Your task to perform on an android device: Open accessibility settings Image 0: 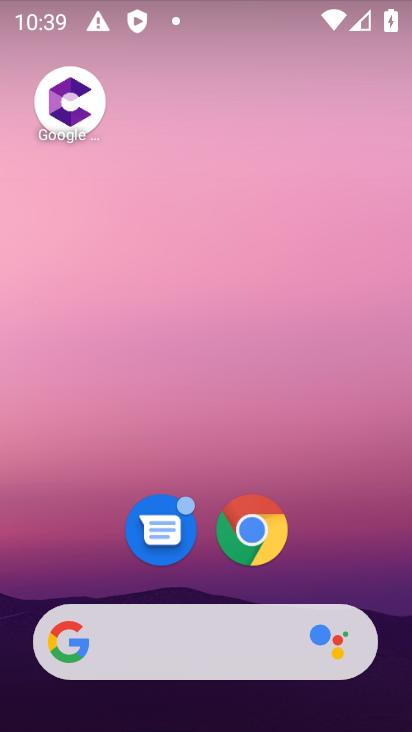
Step 0: press back button
Your task to perform on an android device: Open accessibility settings Image 1: 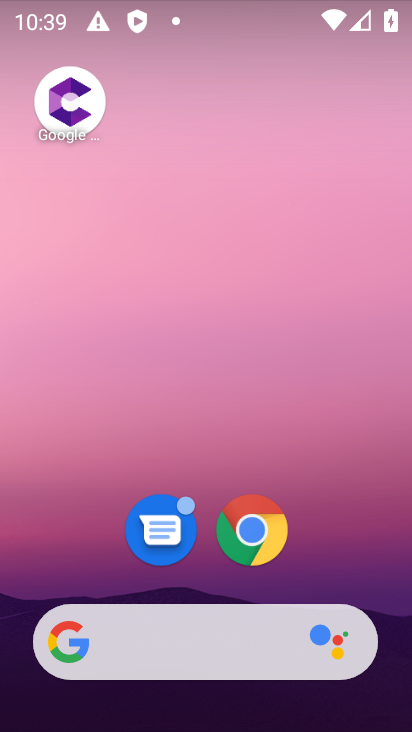
Step 1: drag from (272, 615) to (280, 141)
Your task to perform on an android device: Open accessibility settings Image 2: 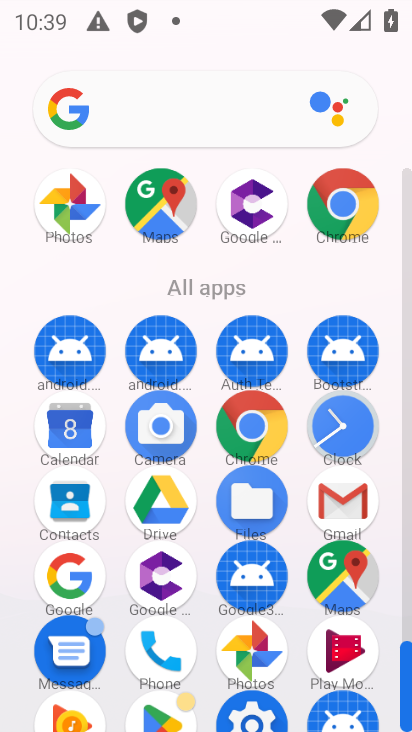
Step 2: drag from (274, 397) to (268, 161)
Your task to perform on an android device: Open accessibility settings Image 3: 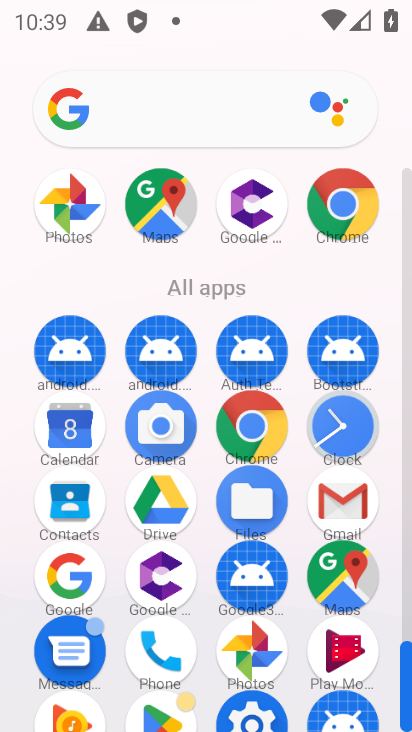
Step 3: drag from (253, 540) to (269, 205)
Your task to perform on an android device: Open accessibility settings Image 4: 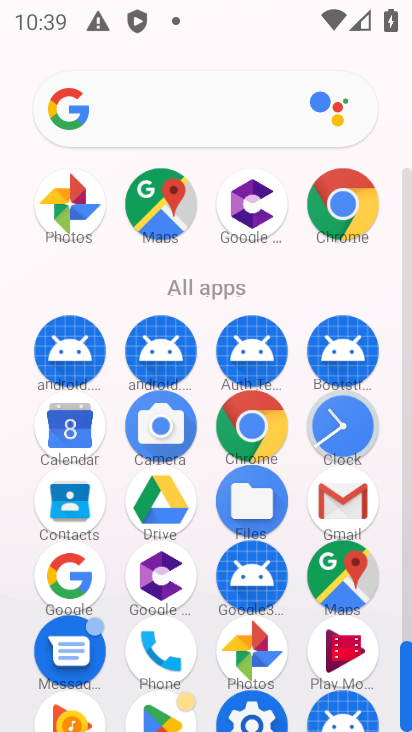
Step 4: drag from (306, 601) to (309, 298)
Your task to perform on an android device: Open accessibility settings Image 5: 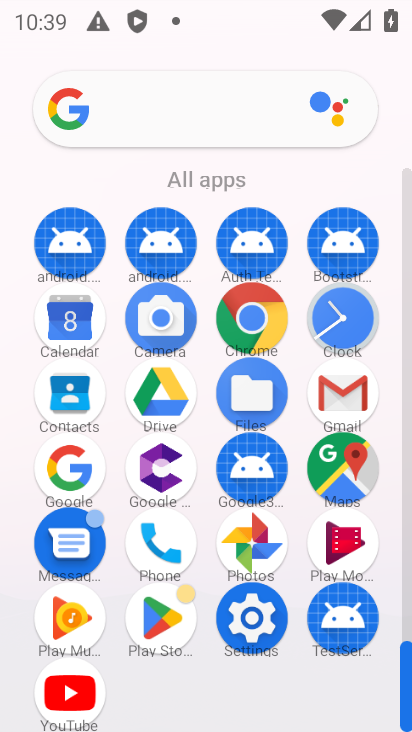
Step 5: drag from (298, 591) to (278, 167)
Your task to perform on an android device: Open accessibility settings Image 6: 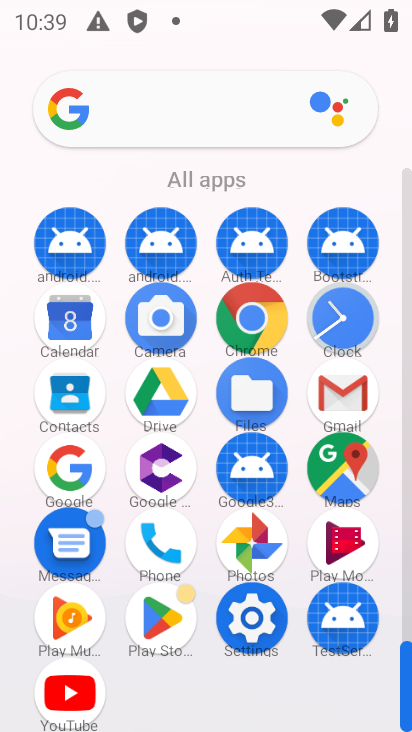
Step 6: click (248, 605)
Your task to perform on an android device: Open accessibility settings Image 7: 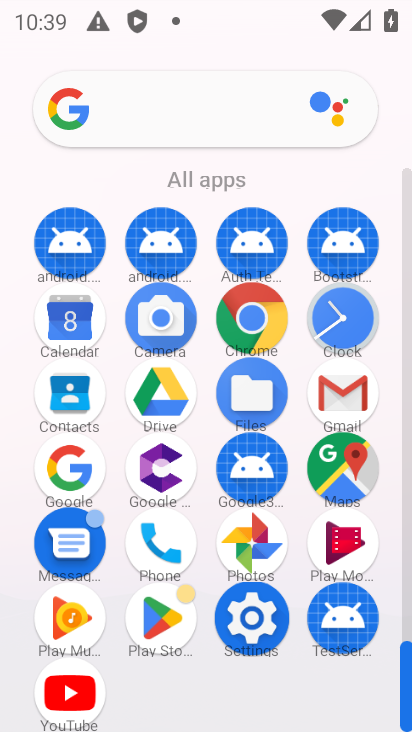
Step 7: click (248, 604)
Your task to perform on an android device: Open accessibility settings Image 8: 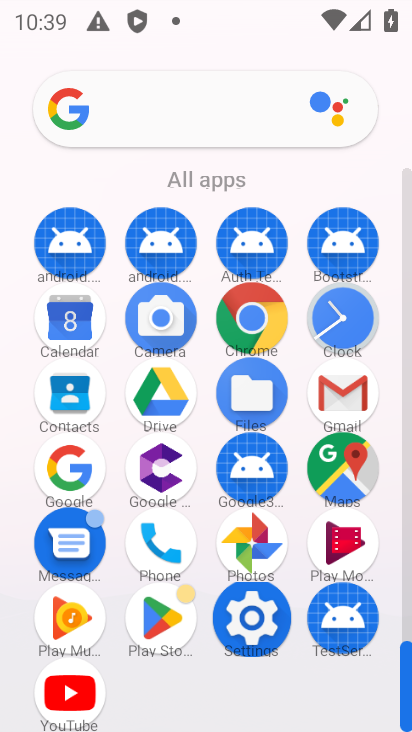
Step 8: click (251, 605)
Your task to perform on an android device: Open accessibility settings Image 9: 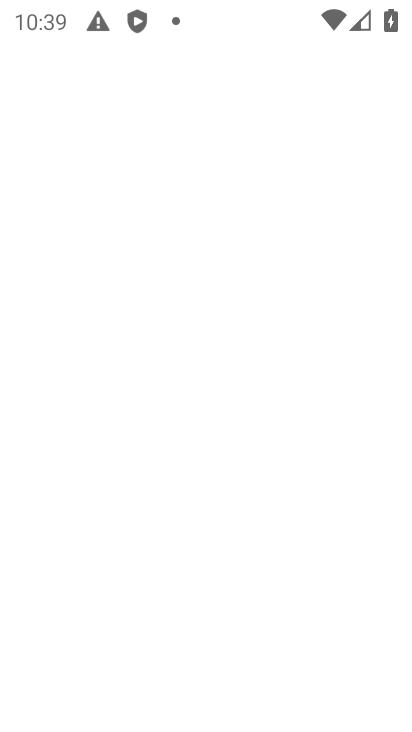
Step 9: click (252, 606)
Your task to perform on an android device: Open accessibility settings Image 10: 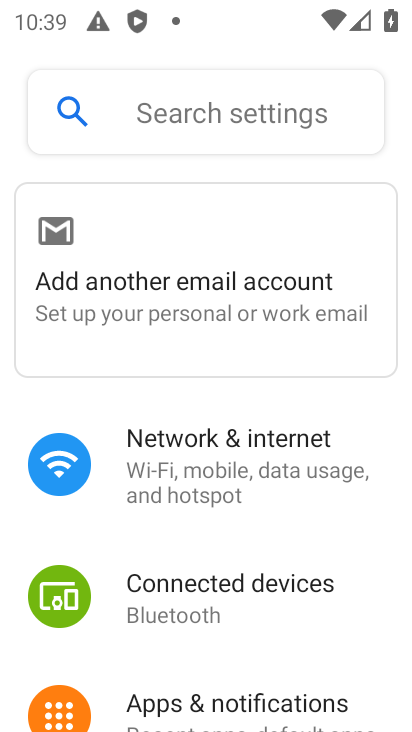
Step 10: drag from (227, 532) to (233, 397)
Your task to perform on an android device: Open accessibility settings Image 11: 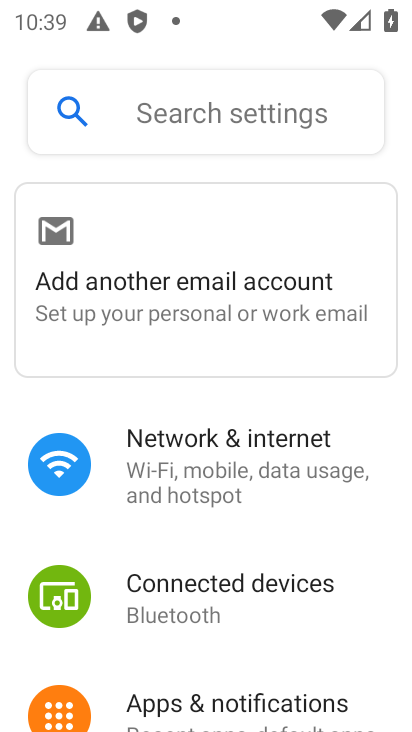
Step 11: click (245, 346)
Your task to perform on an android device: Open accessibility settings Image 12: 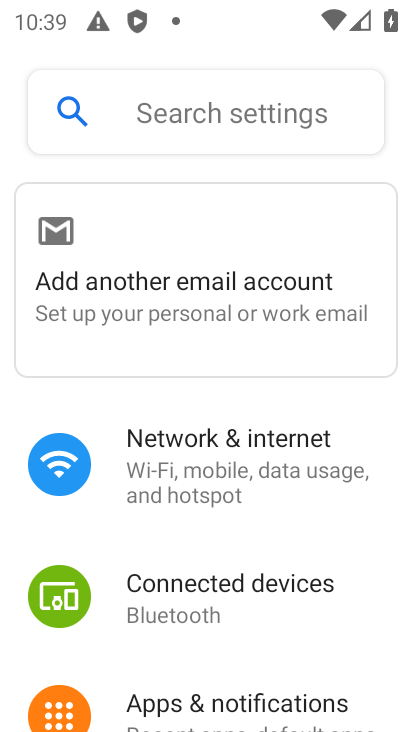
Step 12: drag from (244, 481) to (218, 284)
Your task to perform on an android device: Open accessibility settings Image 13: 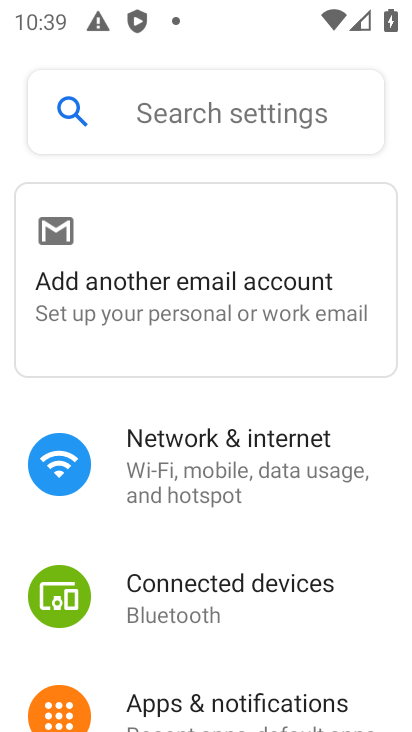
Step 13: drag from (215, 508) to (201, 314)
Your task to perform on an android device: Open accessibility settings Image 14: 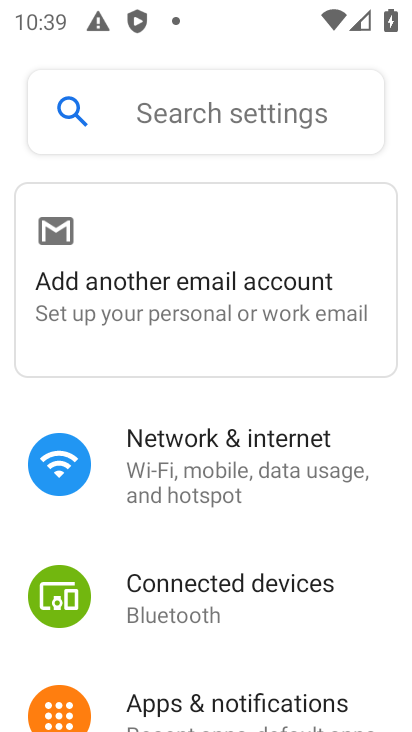
Step 14: drag from (218, 321) to (230, 274)
Your task to perform on an android device: Open accessibility settings Image 15: 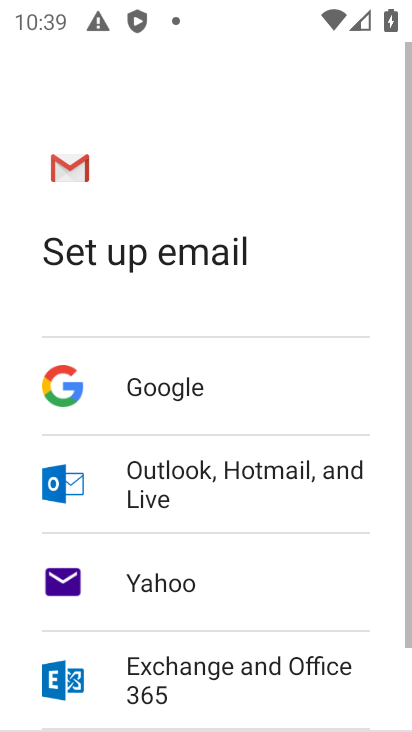
Step 15: drag from (230, 400) to (223, 263)
Your task to perform on an android device: Open accessibility settings Image 16: 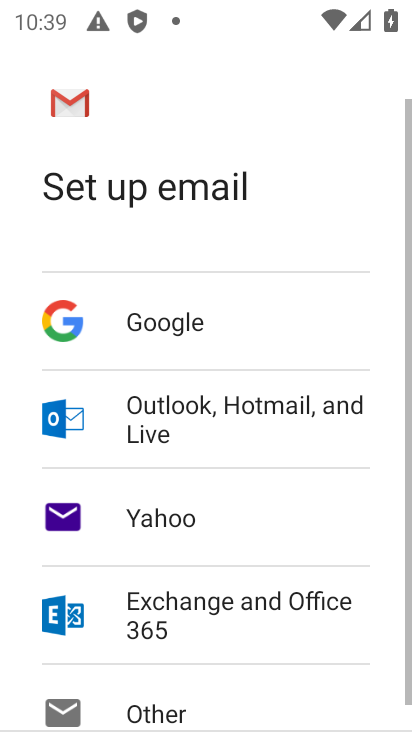
Step 16: drag from (181, 568) to (170, 357)
Your task to perform on an android device: Open accessibility settings Image 17: 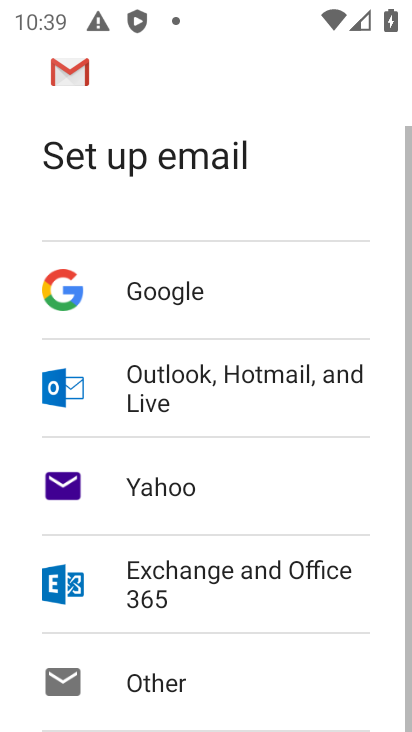
Step 17: press back button
Your task to perform on an android device: Open accessibility settings Image 18: 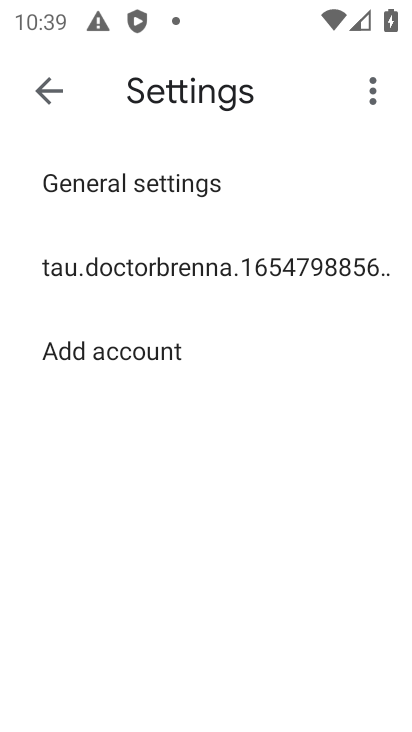
Step 18: click (38, 104)
Your task to perform on an android device: Open accessibility settings Image 19: 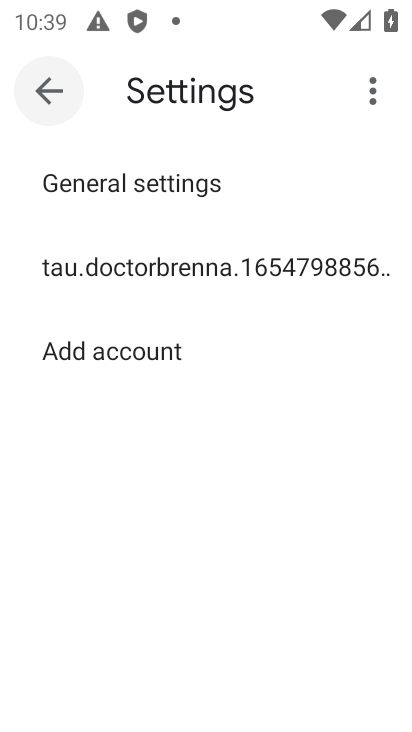
Step 19: click (36, 94)
Your task to perform on an android device: Open accessibility settings Image 20: 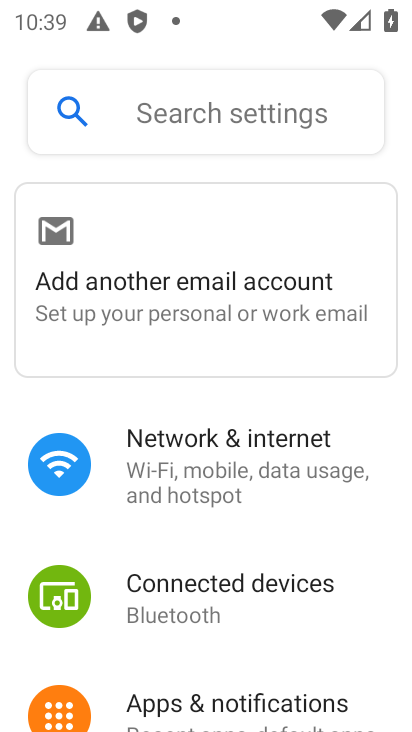
Step 20: drag from (193, 441) to (200, 353)
Your task to perform on an android device: Open accessibility settings Image 21: 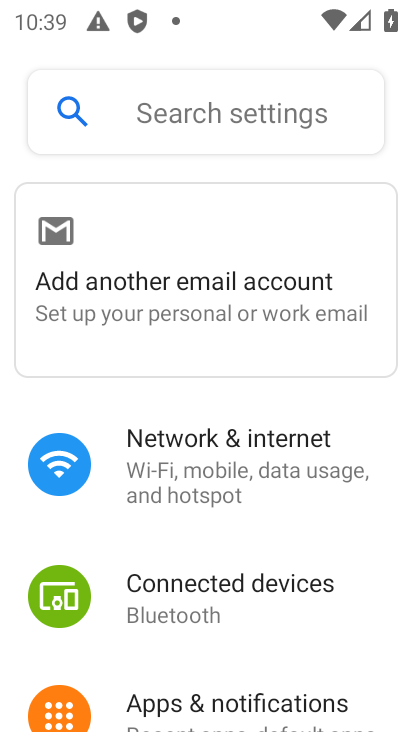
Step 21: drag from (222, 487) to (241, 247)
Your task to perform on an android device: Open accessibility settings Image 22: 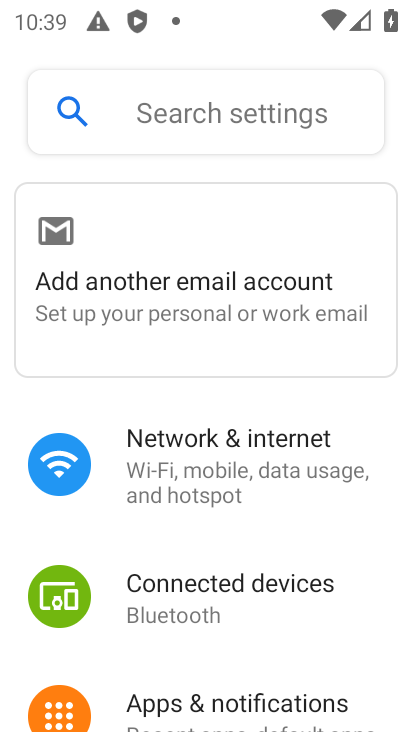
Step 22: drag from (194, 553) to (175, 249)
Your task to perform on an android device: Open accessibility settings Image 23: 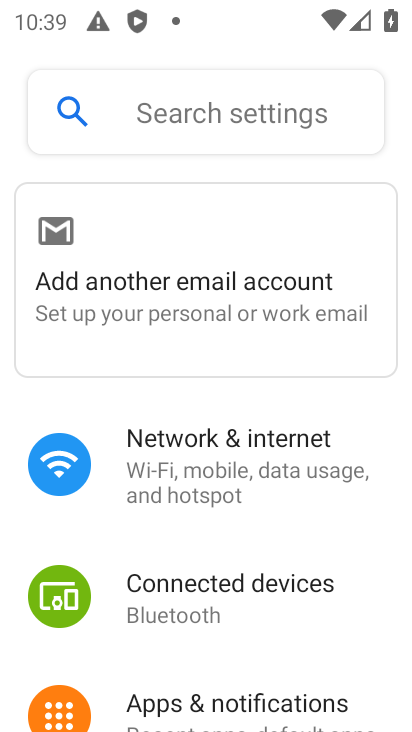
Step 23: drag from (159, 608) to (157, 375)
Your task to perform on an android device: Open accessibility settings Image 24: 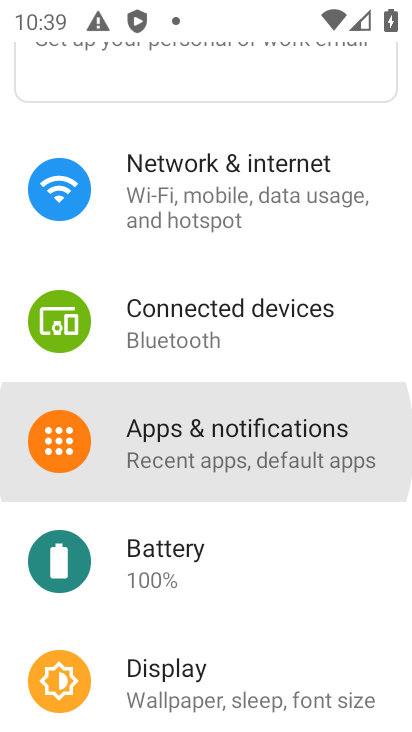
Step 24: drag from (158, 615) to (159, 404)
Your task to perform on an android device: Open accessibility settings Image 25: 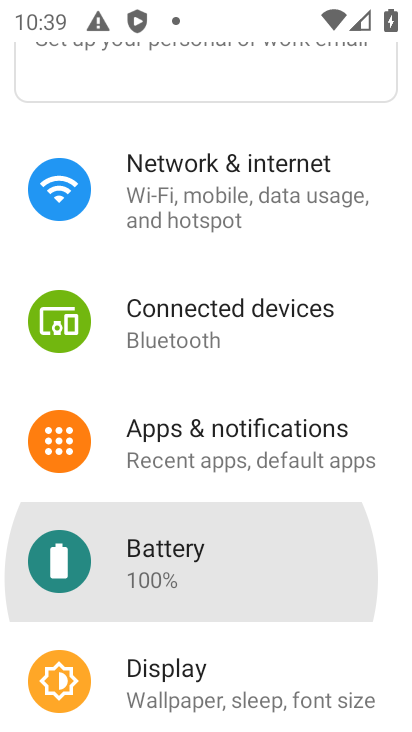
Step 25: drag from (162, 649) to (162, 502)
Your task to perform on an android device: Open accessibility settings Image 26: 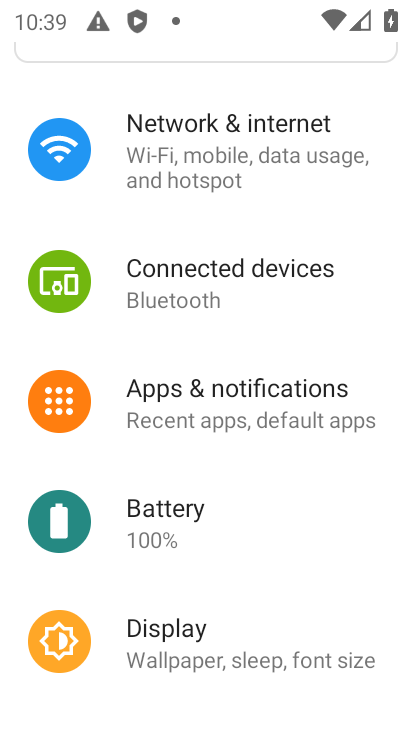
Step 26: drag from (168, 614) to (167, 425)
Your task to perform on an android device: Open accessibility settings Image 27: 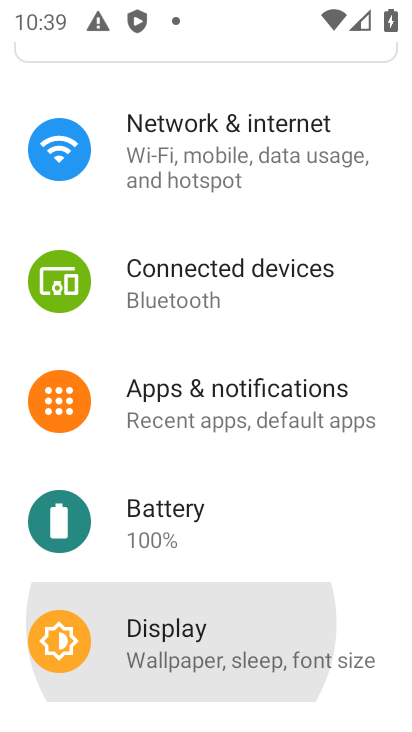
Step 27: drag from (202, 670) to (130, 271)
Your task to perform on an android device: Open accessibility settings Image 28: 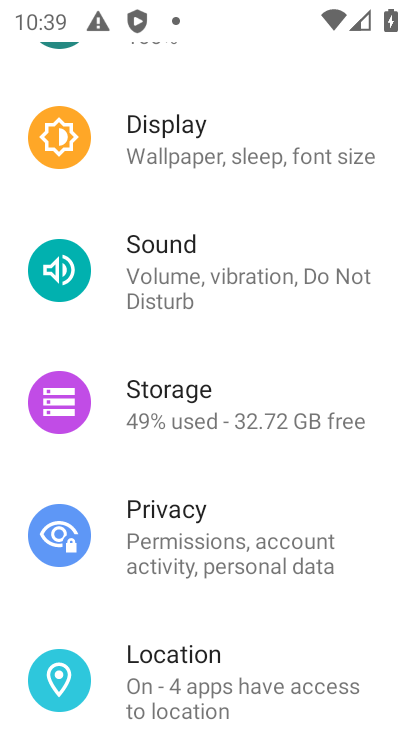
Step 28: drag from (181, 428) to (181, 340)
Your task to perform on an android device: Open accessibility settings Image 29: 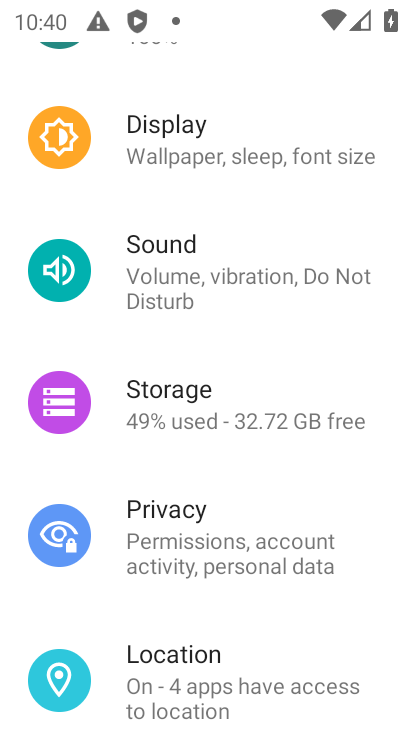
Step 29: drag from (214, 524) to (197, 255)
Your task to perform on an android device: Open accessibility settings Image 30: 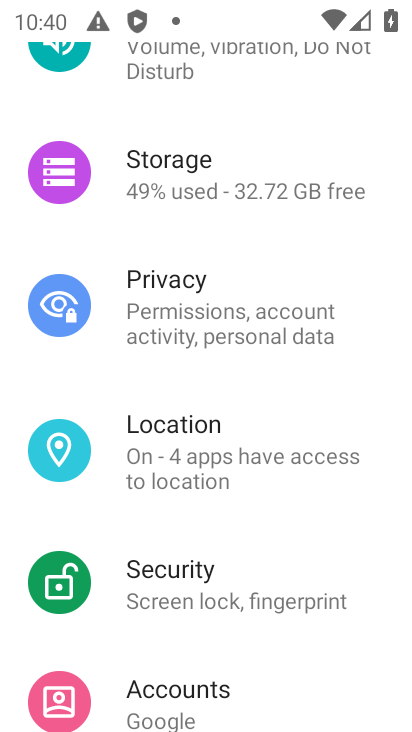
Step 30: drag from (227, 556) to (140, 222)
Your task to perform on an android device: Open accessibility settings Image 31: 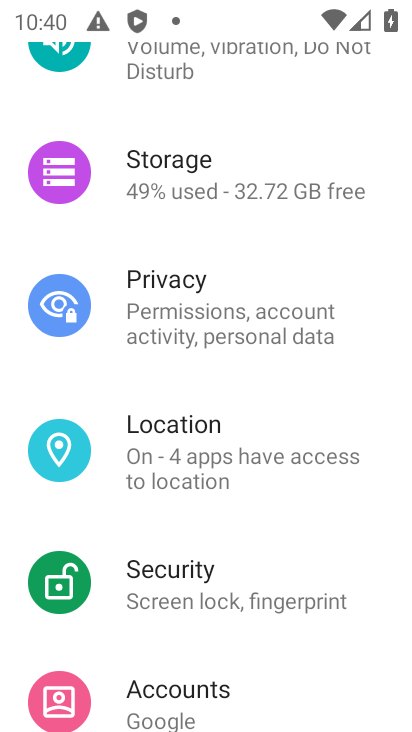
Step 31: drag from (140, 528) to (117, 224)
Your task to perform on an android device: Open accessibility settings Image 32: 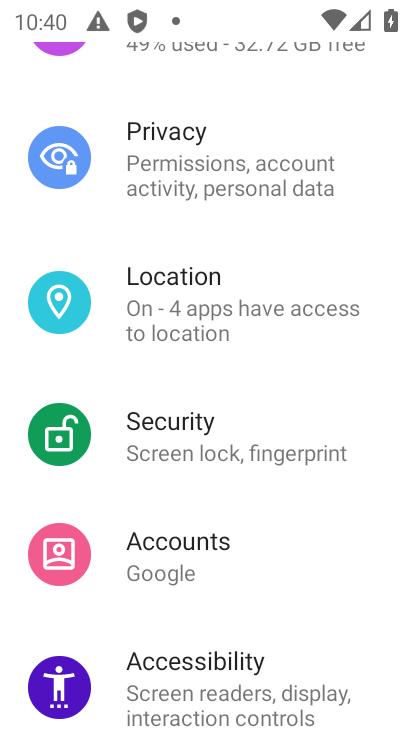
Step 32: click (134, 329)
Your task to perform on an android device: Open accessibility settings Image 33: 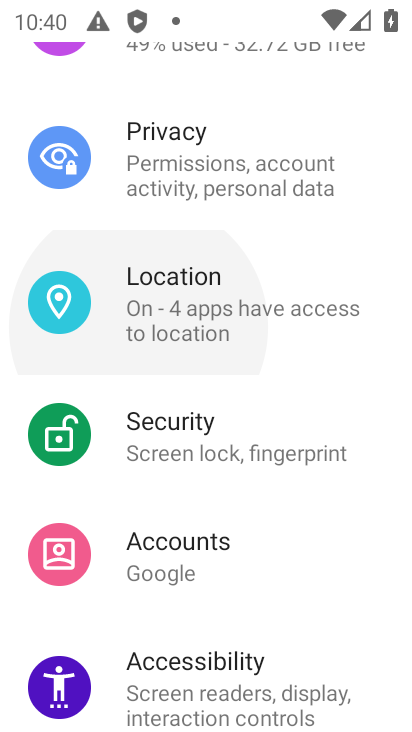
Step 33: drag from (176, 488) to (193, 210)
Your task to perform on an android device: Open accessibility settings Image 34: 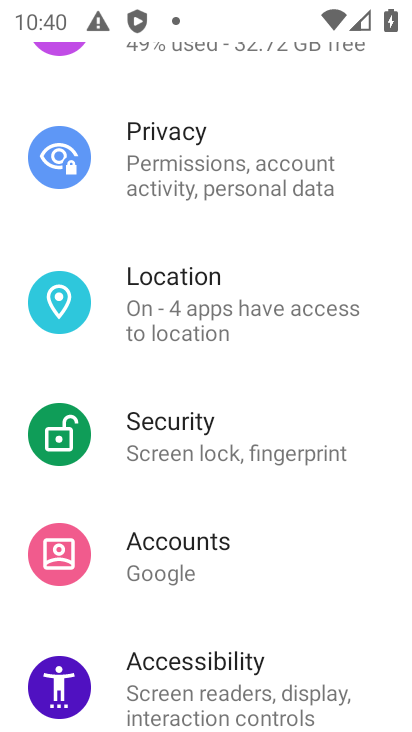
Step 34: click (241, 308)
Your task to perform on an android device: Open accessibility settings Image 35: 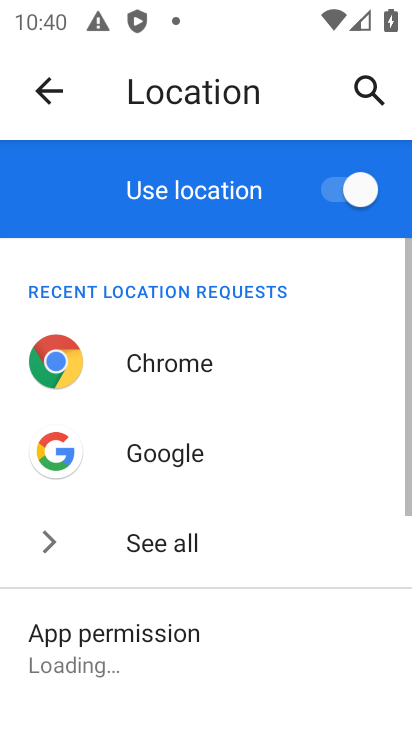
Step 35: click (41, 91)
Your task to perform on an android device: Open accessibility settings Image 36: 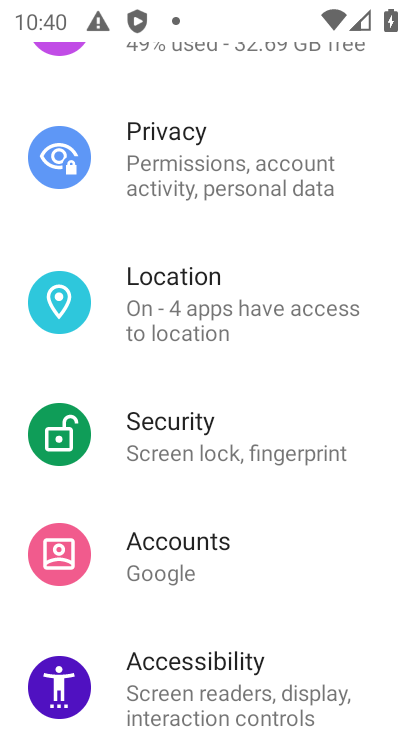
Step 36: click (197, 692)
Your task to perform on an android device: Open accessibility settings Image 37: 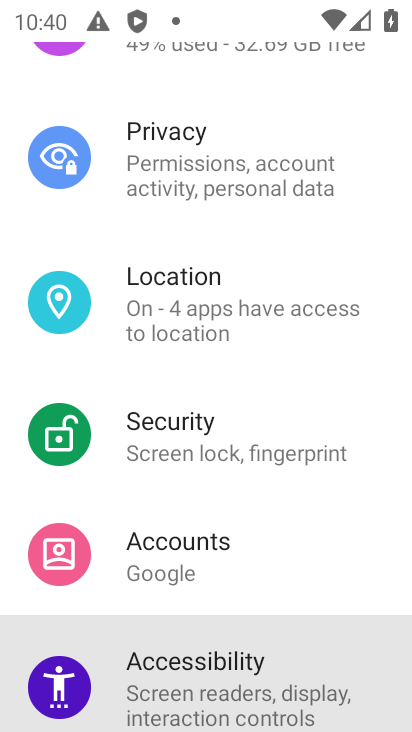
Step 37: click (247, 679)
Your task to perform on an android device: Open accessibility settings Image 38: 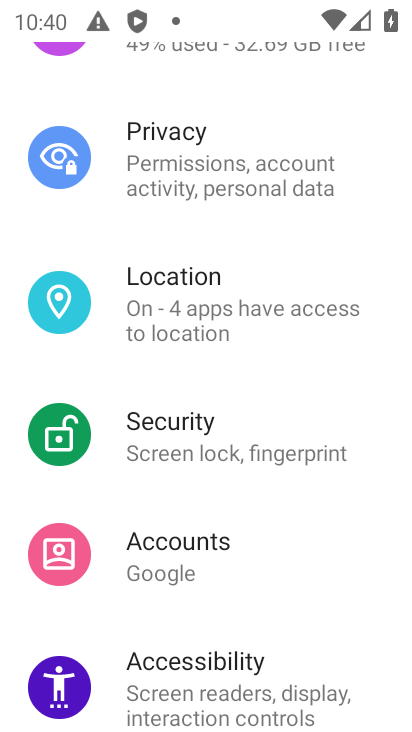
Step 38: click (248, 681)
Your task to perform on an android device: Open accessibility settings Image 39: 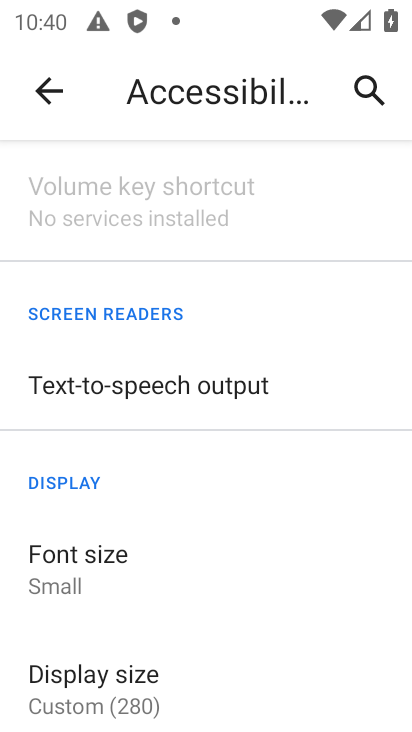
Step 39: task complete